Your task to perform on an android device: Open the stopwatch Image 0: 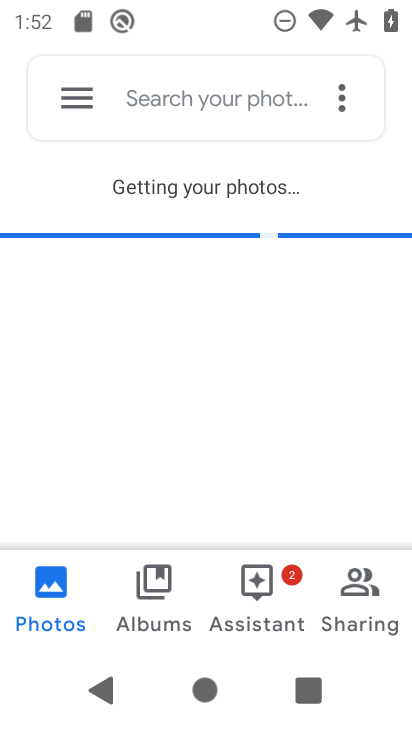
Step 0: press home button
Your task to perform on an android device: Open the stopwatch Image 1: 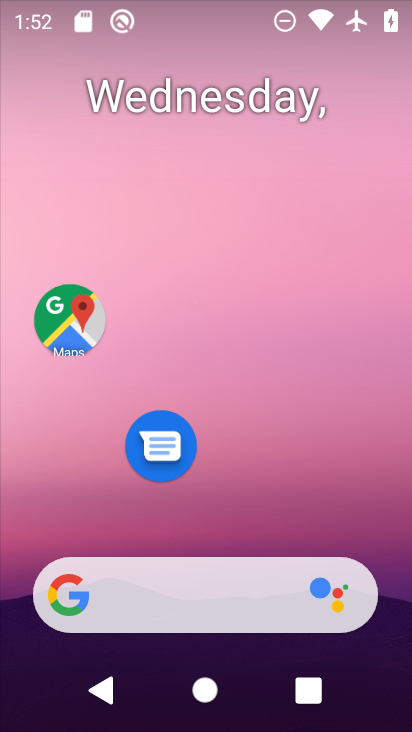
Step 1: drag from (280, 442) to (307, 133)
Your task to perform on an android device: Open the stopwatch Image 2: 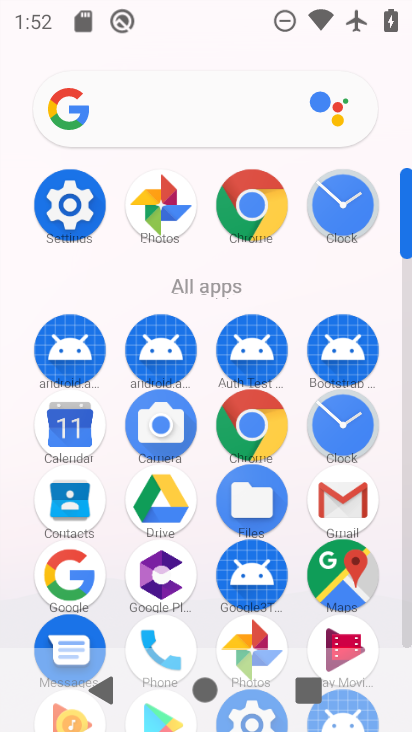
Step 2: click (349, 193)
Your task to perform on an android device: Open the stopwatch Image 3: 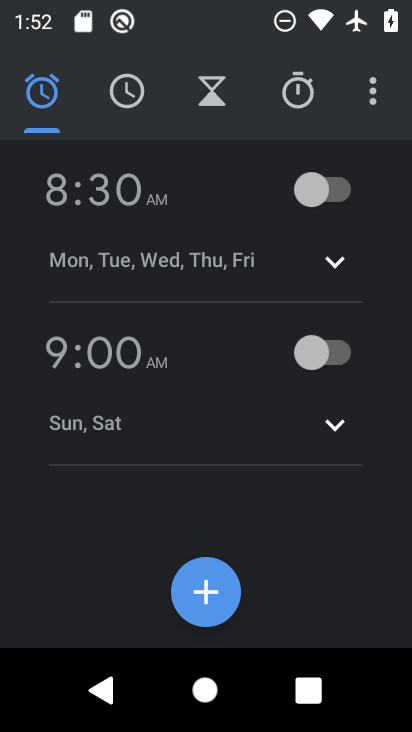
Step 3: click (299, 107)
Your task to perform on an android device: Open the stopwatch Image 4: 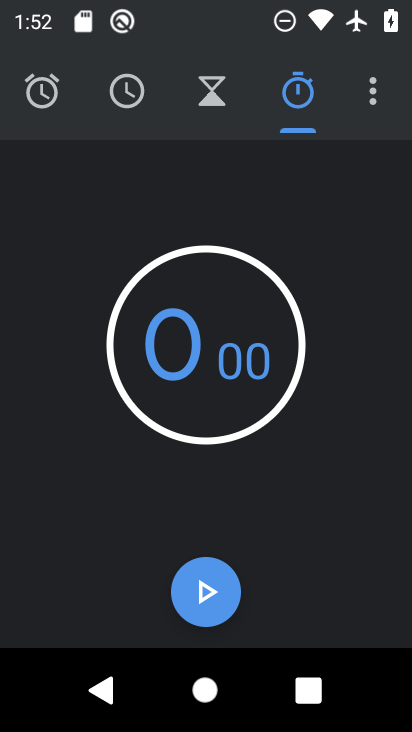
Step 4: task complete